Your task to perform on an android device: turn on translation in the chrome app Image 0: 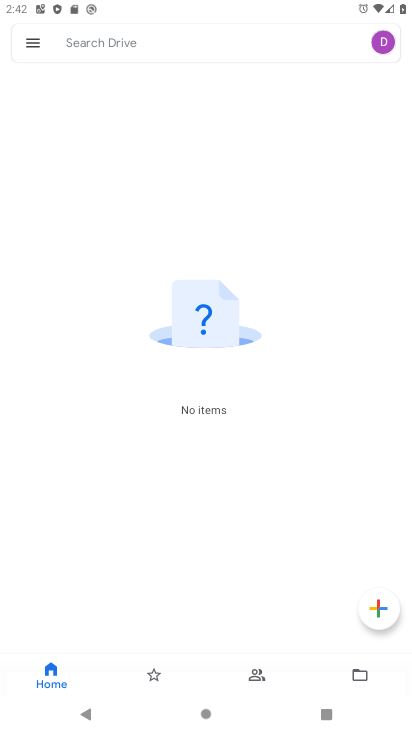
Step 0: press home button
Your task to perform on an android device: turn on translation in the chrome app Image 1: 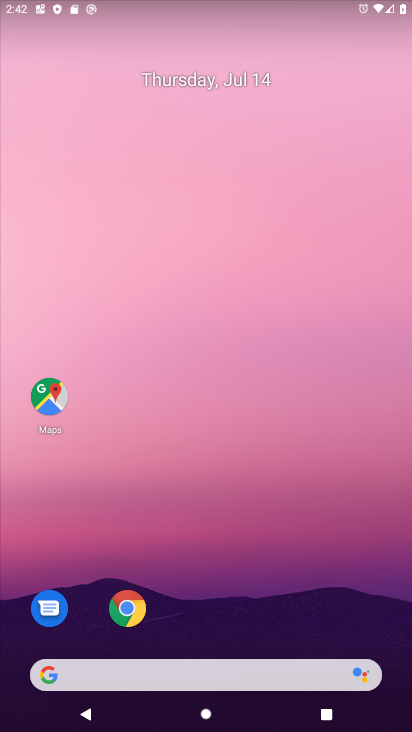
Step 1: click (126, 607)
Your task to perform on an android device: turn on translation in the chrome app Image 2: 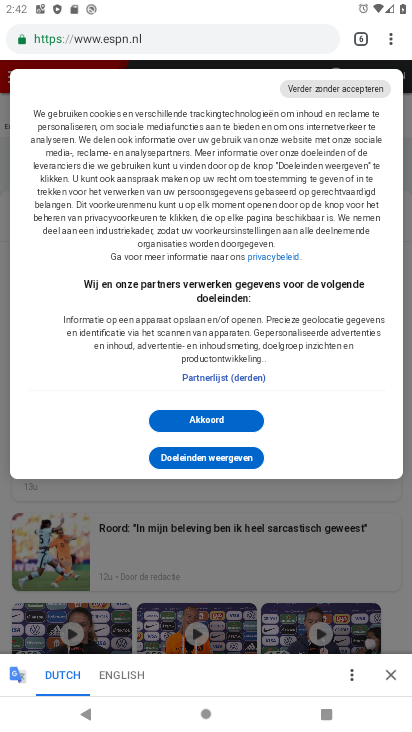
Step 2: click (391, 40)
Your task to perform on an android device: turn on translation in the chrome app Image 3: 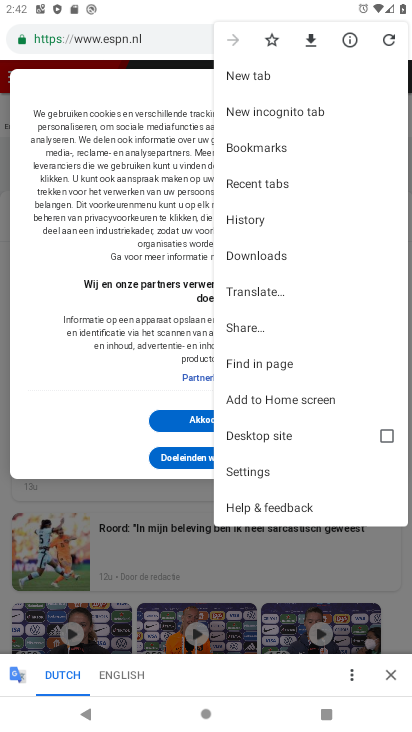
Step 3: click (256, 470)
Your task to perform on an android device: turn on translation in the chrome app Image 4: 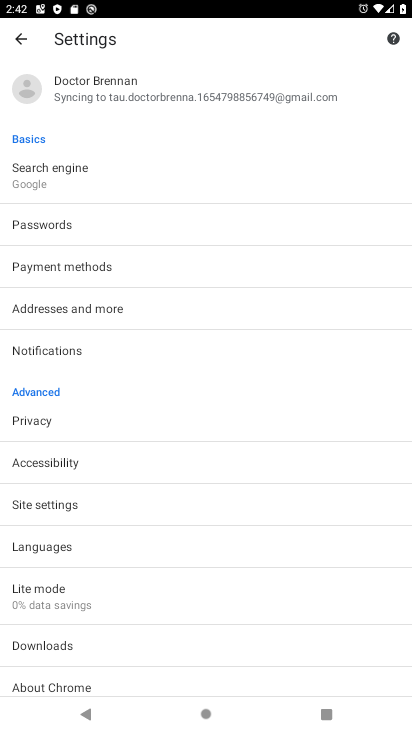
Step 4: click (50, 546)
Your task to perform on an android device: turn on translation in the chrome app Image 5: 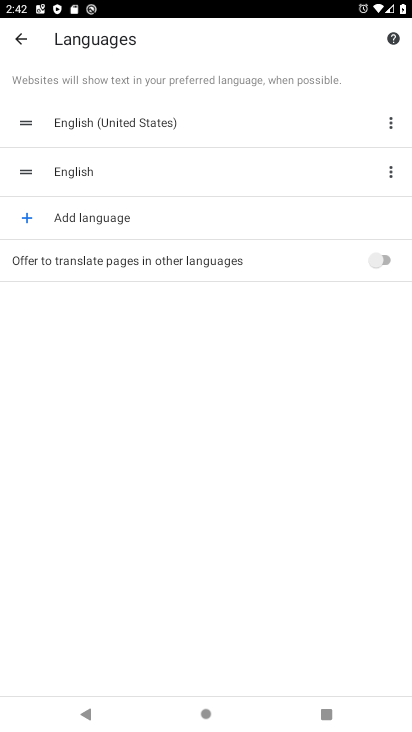
Step 5: click (384, 259)
Your task to perform on an android device: turn on translation in the chrome app Image 6: 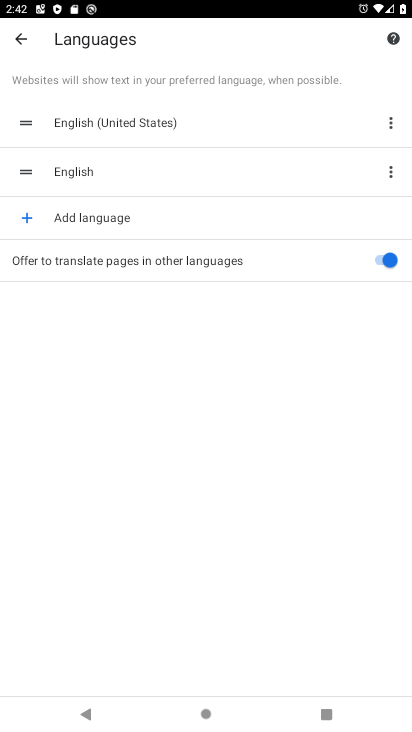
Step 6: task complete